Your task to perform on an android device: clear history in the chrome app Image 0: 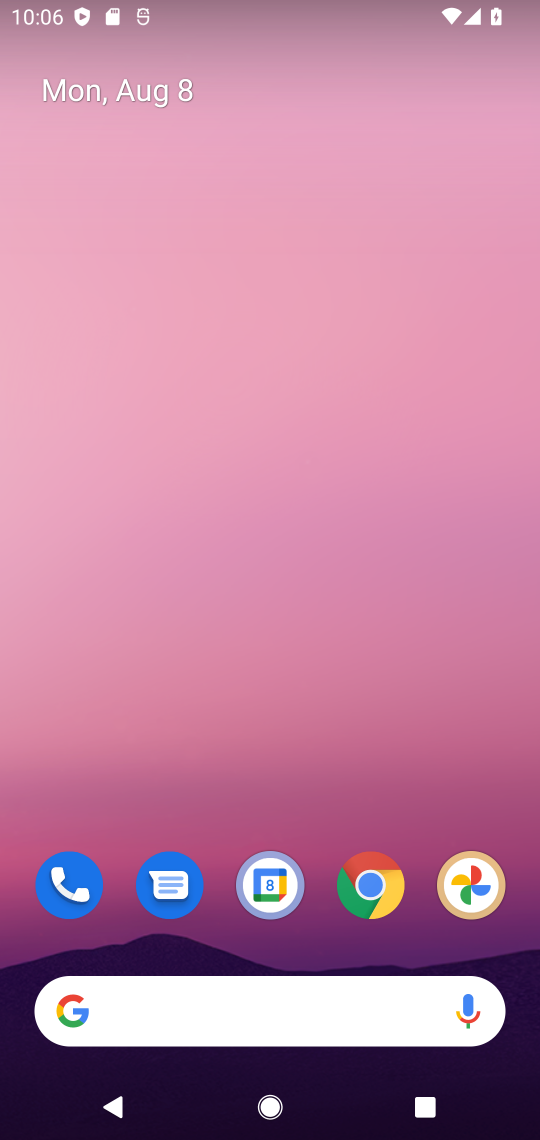
Step 0: click (370, 895)
Your task to perform on an android device: clear history in the chrome app Image 1: 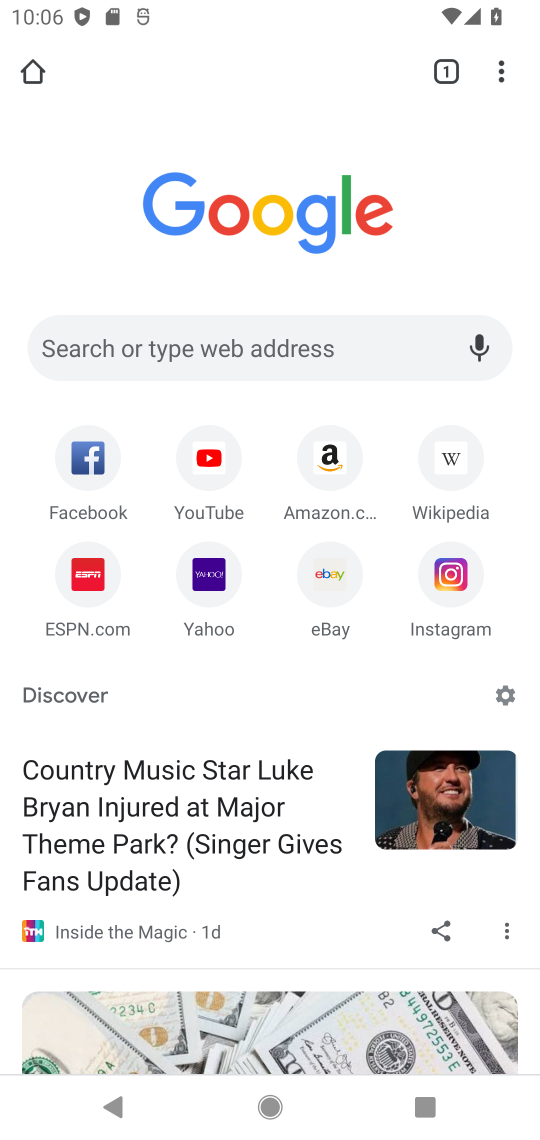
Step 1: click (501, 69)
Your task to perform on an android device: clear history in the chrome app Image 2: 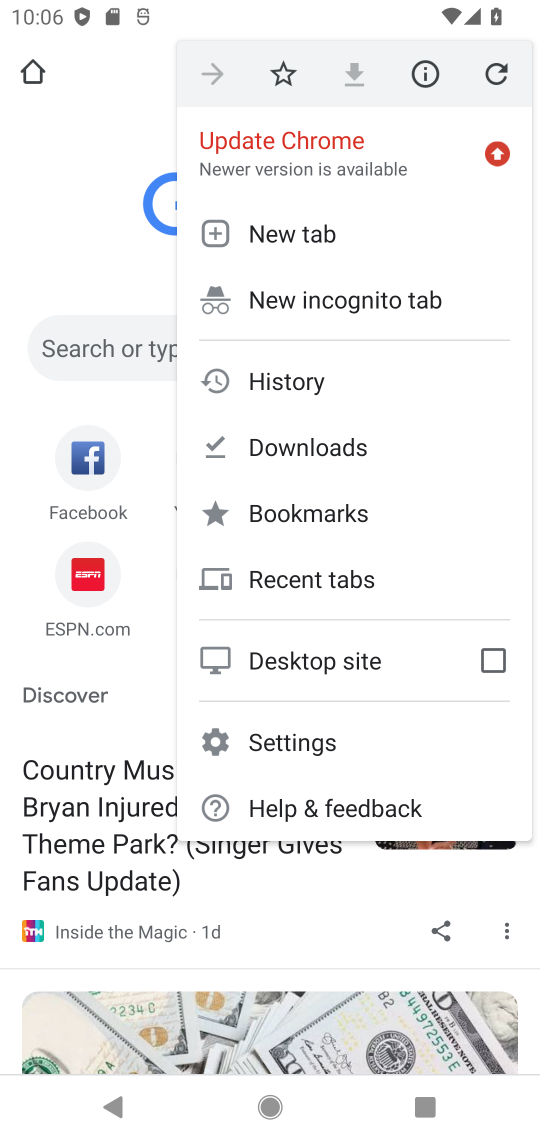
Step 2: click (342, 362)
Your task to perform on an android device: clear history in the chrome app Image 3: 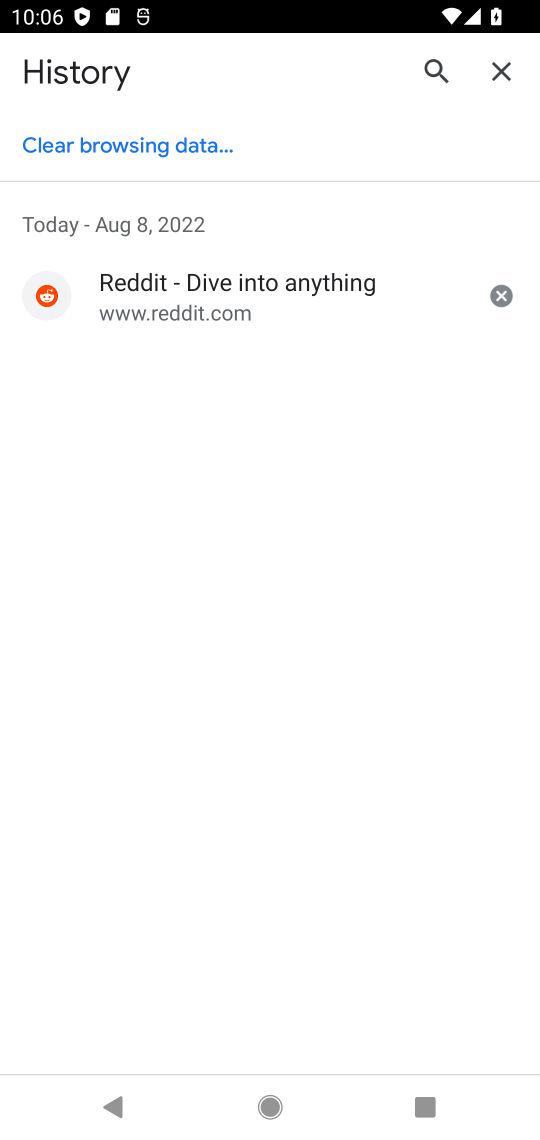
Step 3: click (84, 132)
Your task to perform on an android device: clear history in the chrome app Image 4: 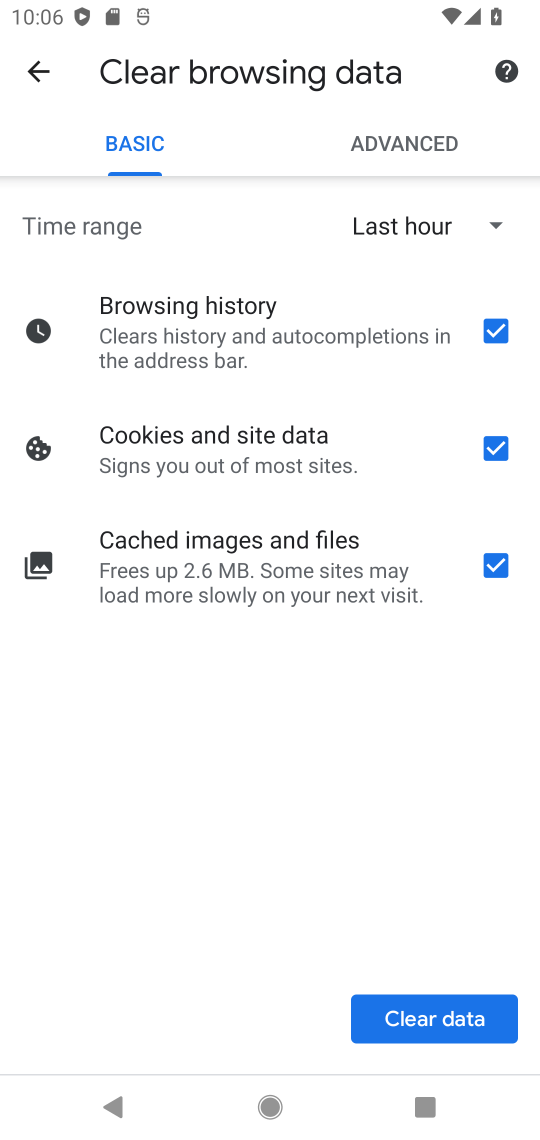
Step 4: click (405, 1039)
Your task to perform on an android device: clear history in the chrome app Image 5: 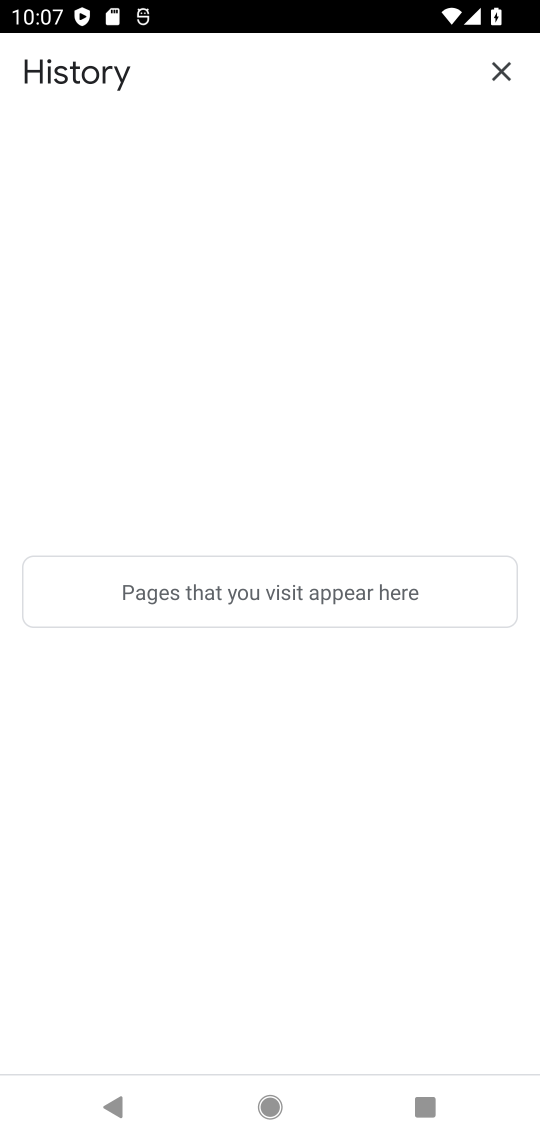
Step 5: task complete